Your task to perform on an android device: Go to display settings Image 0: 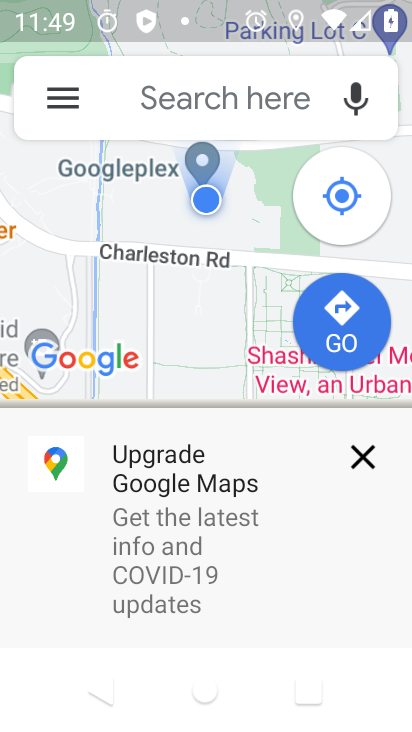
Step 0: press home button
Your task to perform on an android device: Go to display settings Image 1: 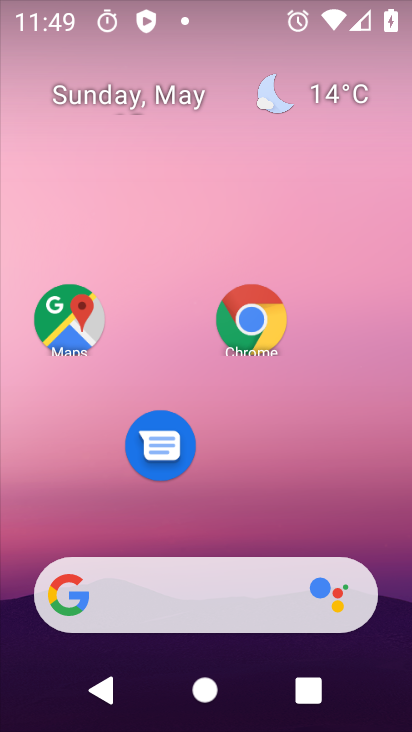
Step 1: drag from (166, 585) to (290, 150)
Your task to perform on an android device: Go to display settings Image 2: 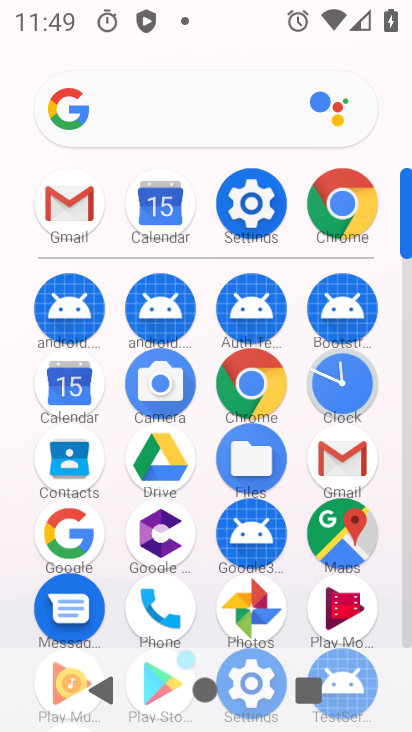
Step 2: click (256, 221)
Your task to perform on an android device: Go to display settings Image 3: 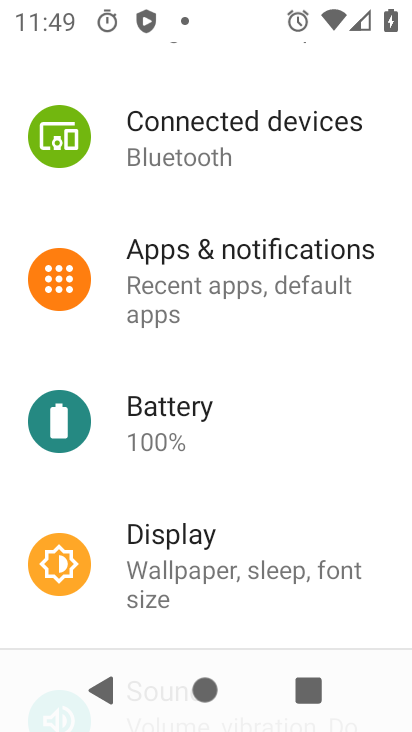
Step 3: drag from (271, 188) to (277, 601)
Your task to perform on an android device: Go to display settings Image 4: 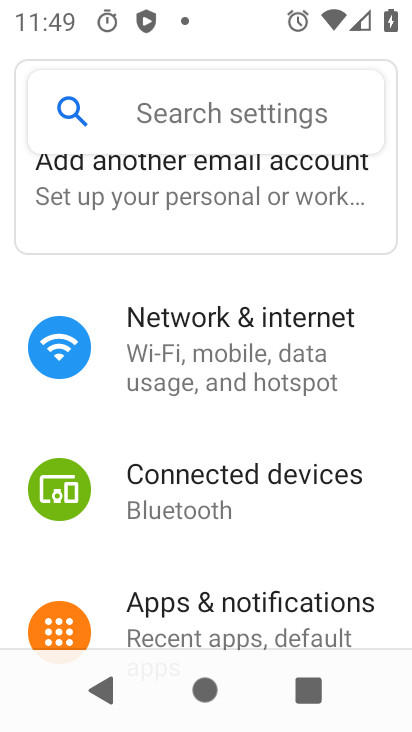
Step 4: drag from (239, 590) to (330, 126)
Your task to perform on an android device: Go to display settings Image 5: 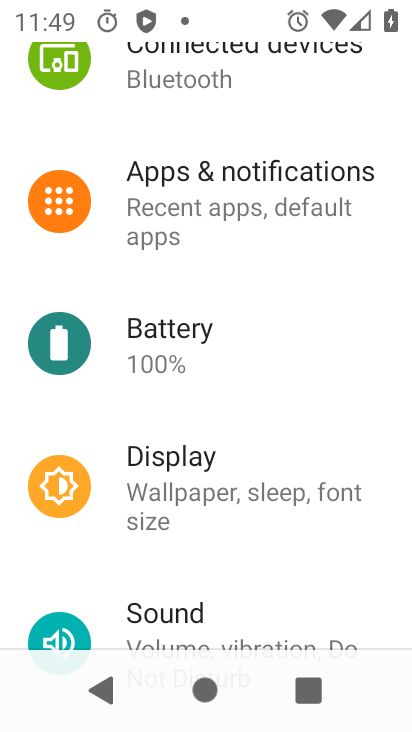
Step 5: click (192, 489)
Your task to perform on an android device: Go to display settings Image 6: 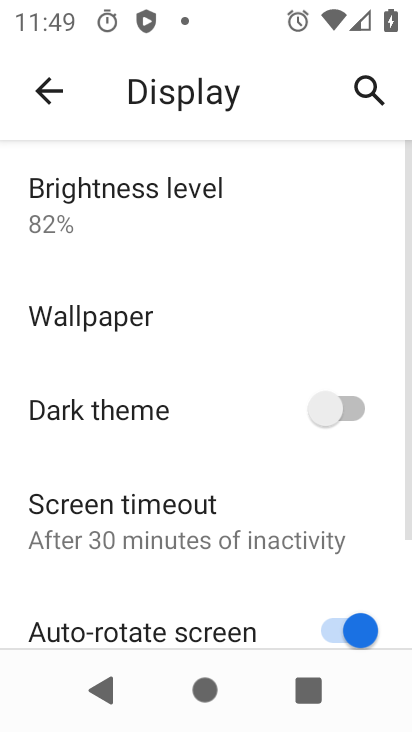
Step 6: drag from (187, 615) to (328, 160)
Your task to perform on an android device: Go to display settings Image 7: 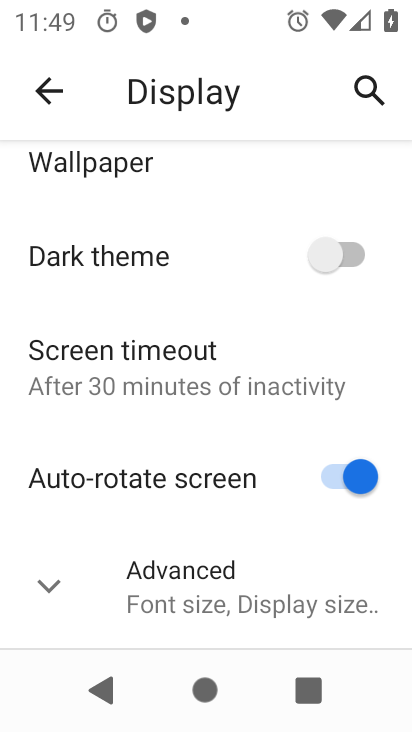
Step 7: click (138, 564)
Your task to perform on an android device: Go to display settings Image 8: 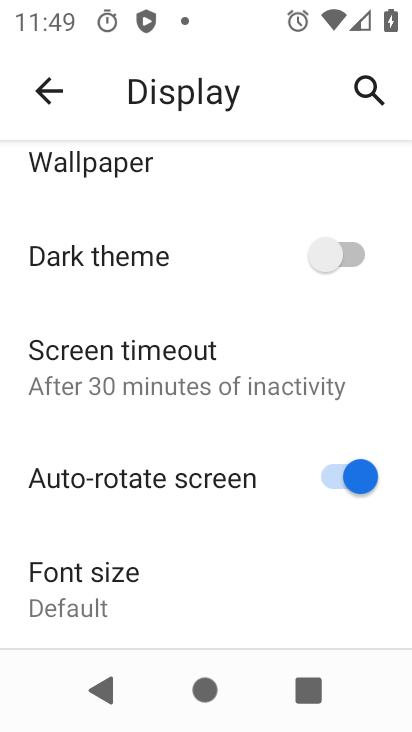
Step 8: task complete